Your task to perform on an android device: toggle notifications settings in the gmail app Image 0: 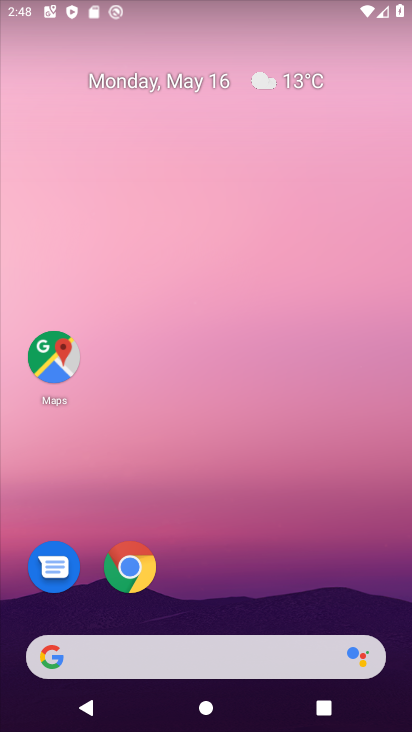
Step 0: drag from (308, 584) to (240, 70)
Your task to perform on an android device: toggle notifications settings in the gmail app Image 1: 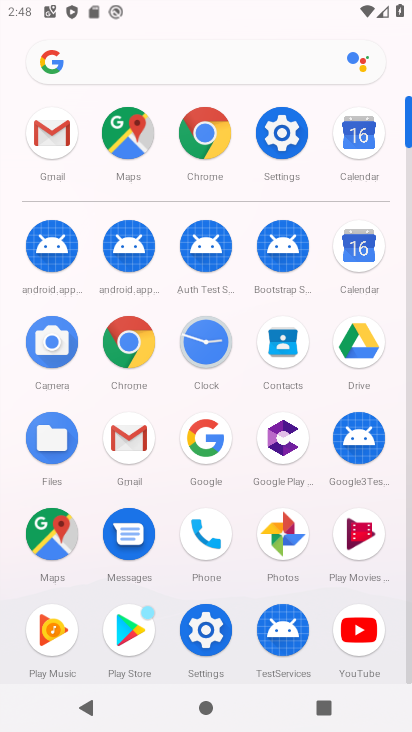
Step 1: click (57, 124)
Your task to perform on an android device: toggle notifications settings in the gmail app Image 2: 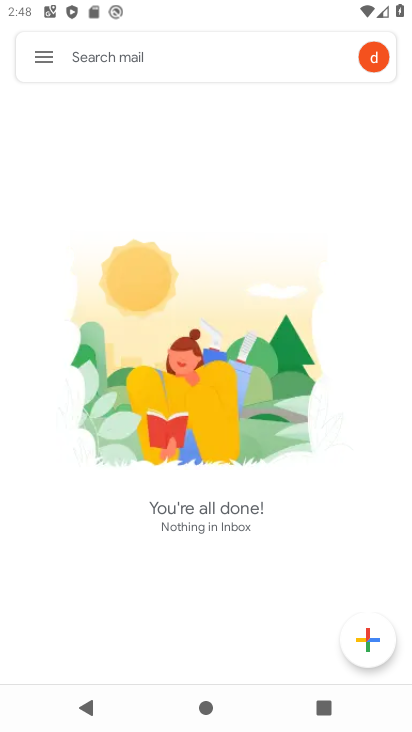
Step 2: click (30, 58)
Your task to perform on an android device: toggle notifications settings in the gmail app Image 3: 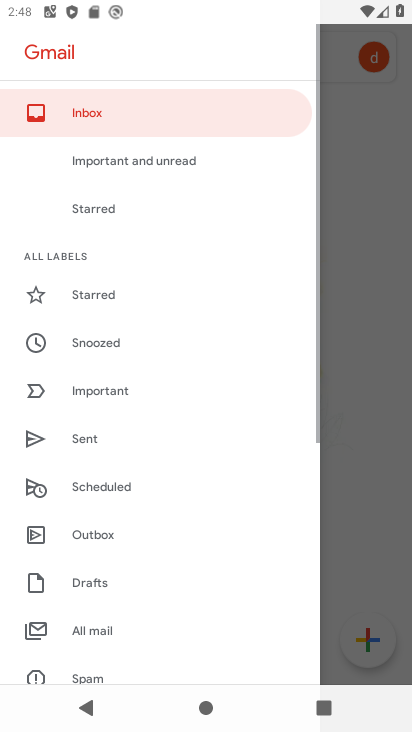
Step 3: drag from (110, 637) to (272, 130)
Your task to perform on an android device: toggle notifications settings in the gmail app Image 4: 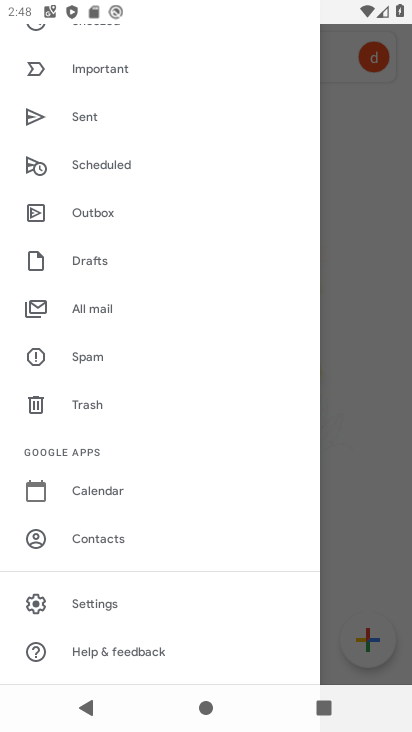
Step 4: click (125, 601)
Your task to perform on an android device: toggle notifications settings in the gmail app Image 5: 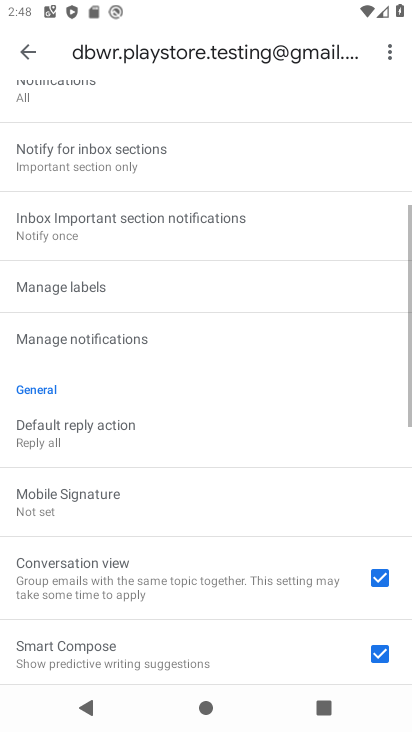
Step 5: drag from (204, 138) to (188, 674)
Your task to perform on an android device: toggle notifications settings in the gmail app Image 6: 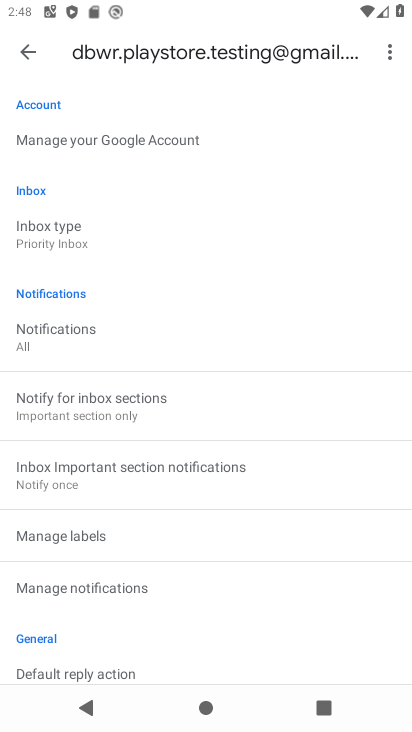
Step 6: click (105, 586)
Your task to perform on an android device: toggle notifications settings in the gmail app Image 7: 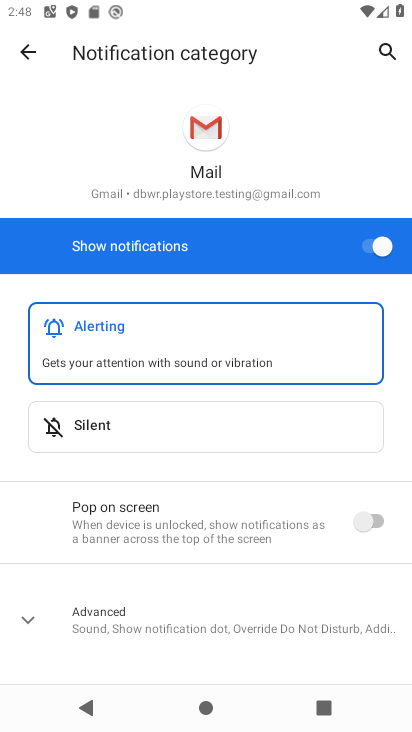
Step 7: click (367, 246)
Your task to perform on an android device: toggle notifications settings in the gmail app Image 8: 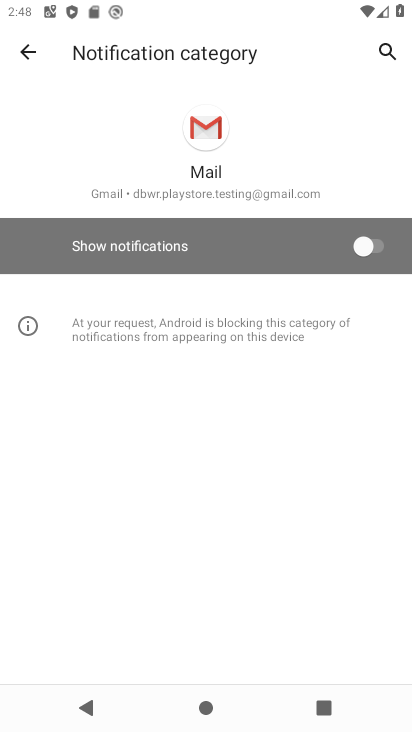
Step 8: task complete